Your task to perform on an android device: open the mobile data screen to see how much data has been used Image 0: 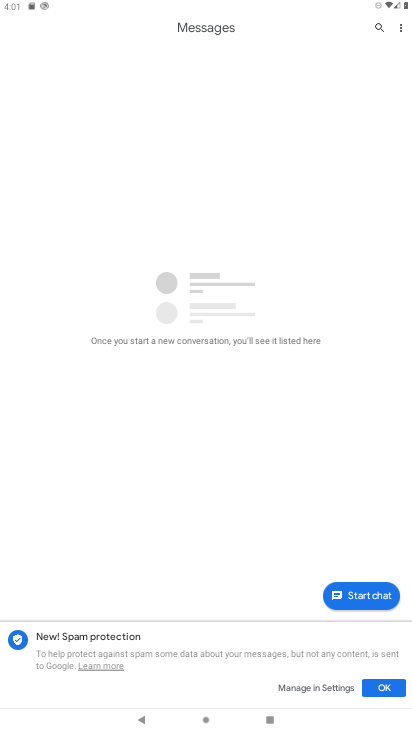
Step 0: press home button
Your task to perform on an android device: open the mobile data screen to see how much data has been used Image 1: 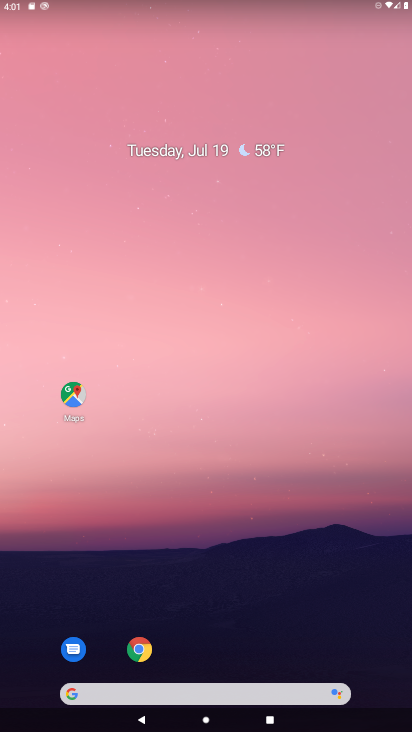
Step 1: drag from (231, 711) to (225, 306)
Your task to perform on an android device: open the mobile data screen to see how much data has been used Image 2: 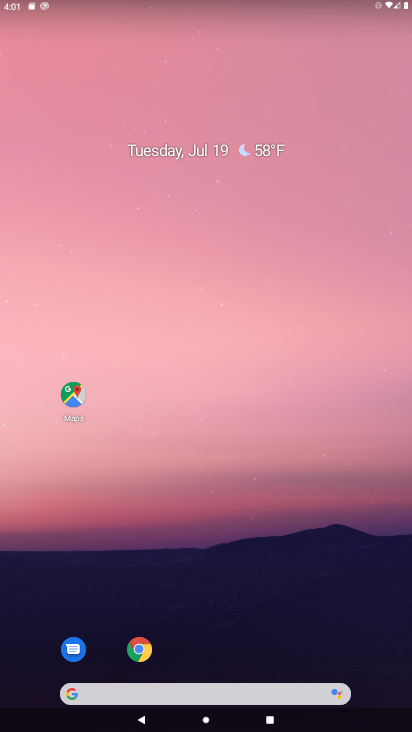
Step 2: drag from (238, 708) to (238, 571)
Your task to perform on an android device: open the mobile data screen to see how much data has been used Image 3: 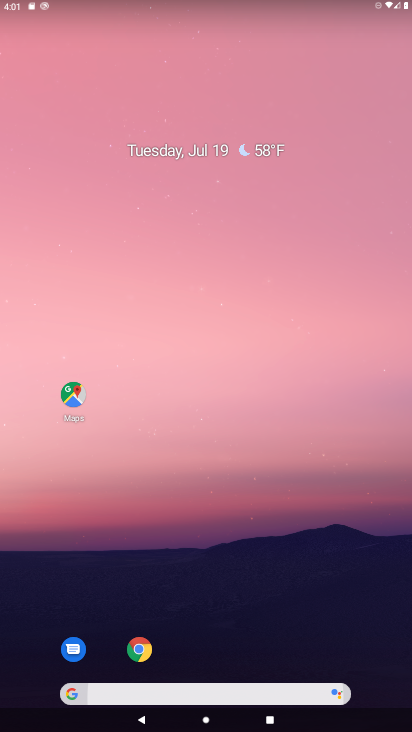
Step 3: drag from (239, 357) to (239, 214)
Your task to perform on an android device: open the mobile data screen to see how much data has been used Image 4: 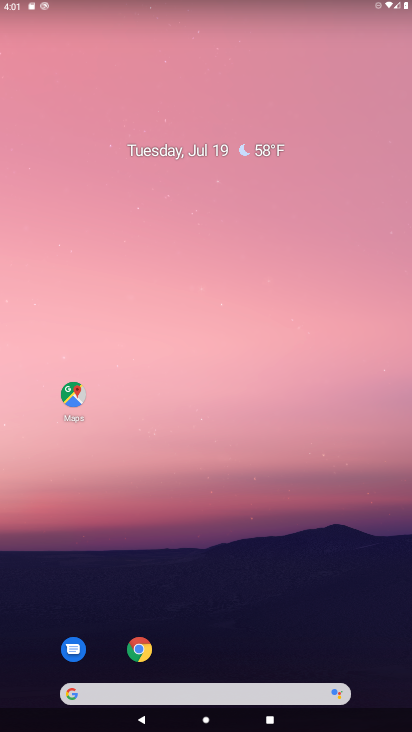
Step 4: drag from (238, 704) to (247, 117)
Your task to perform on an android device: open the mobile data screen to see how much data has been used Image 5: 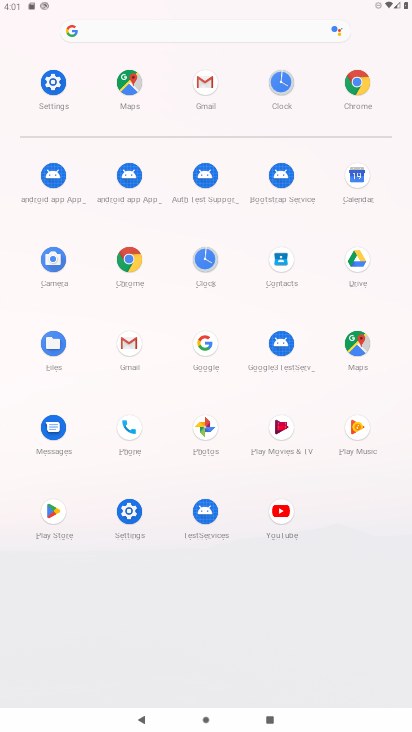
Step 5: click (131, 512)
Your task to perform on an android device: open the mobile data screen to see how much data has been used Image 6: 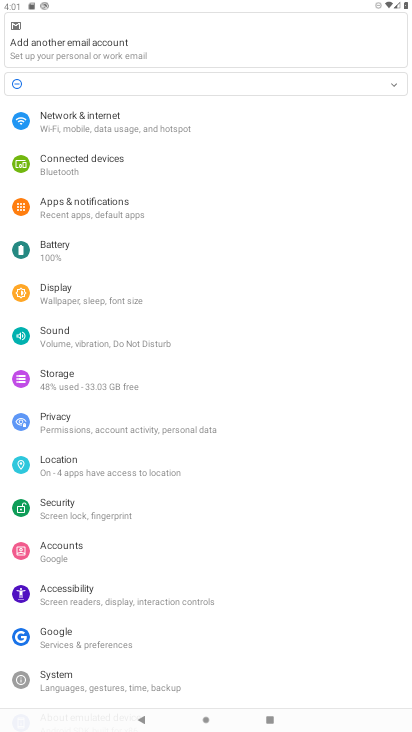
Step 6: click (74, 127)
Your task to perform on an android device: open the mobile data screen to see how much data has been used Image 7: 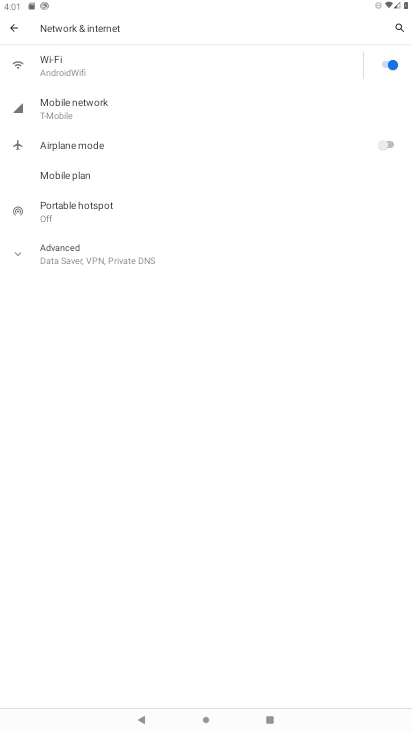
Step 7: click (67, 107)
Your task to perform on an android device: open the mobile data screen to see how much data has been used Image 8: 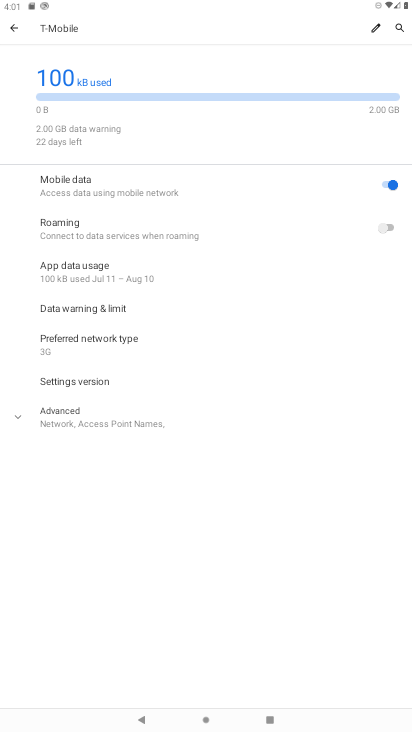
Step 8: click (86, 267)
Your task to perform on an android device: open the mobile data screen to see how much data has been used Image 9: 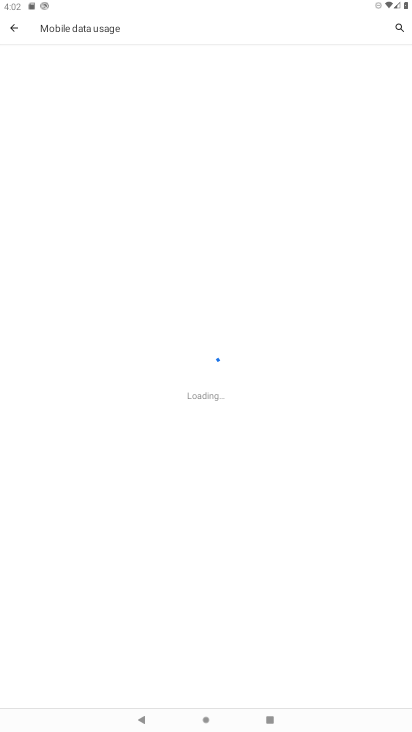
Step 9: task complete